Your task to perform on an android device: Open Youtube and go to "Your channel" Image 0: 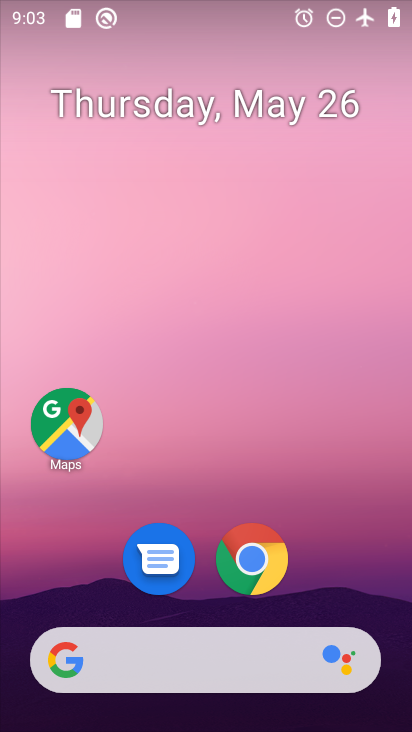
Step 0: drag from (194, 591) to (209, 59)
Your task to perform on an android device: Open Youtube and go to "Your channel" Image 1: 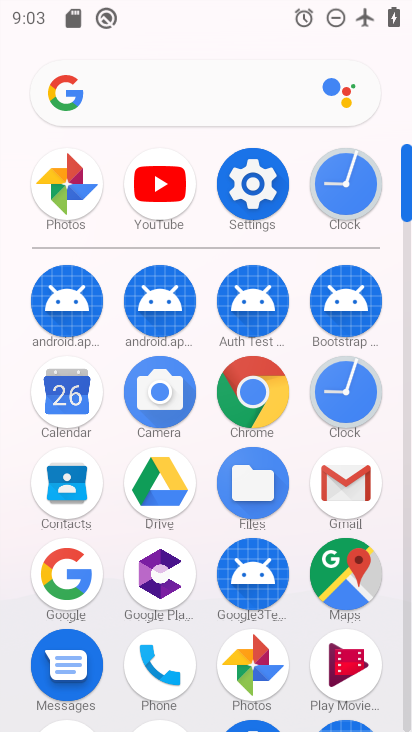
Step 1: click (155, 176)
Your task to perform on an android device: Open Youtube and go to "Your channel" Image 2: 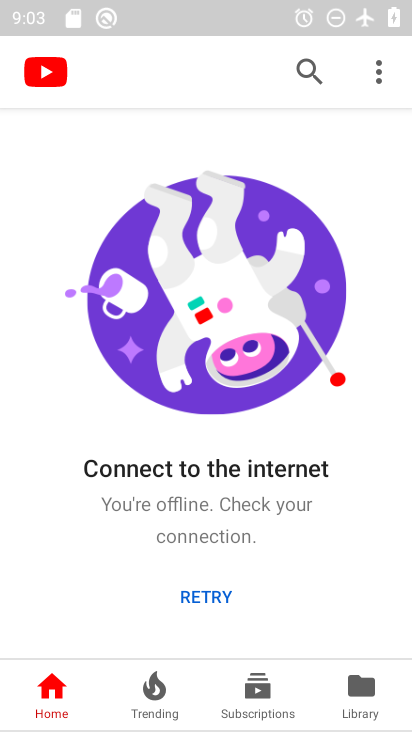
Step 2: task complete